Your task to perform on an android device: What is the recent news? Image 0: 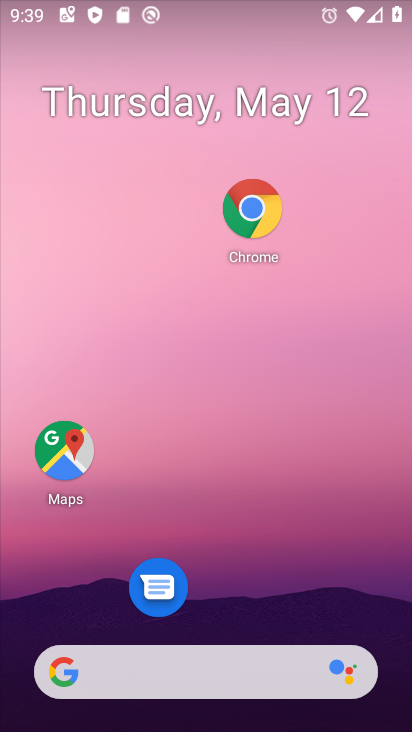
Step 0: drag from (319, 573) to (336, 240)
Your task to perform on an android device: What is the recent news? Image 1: 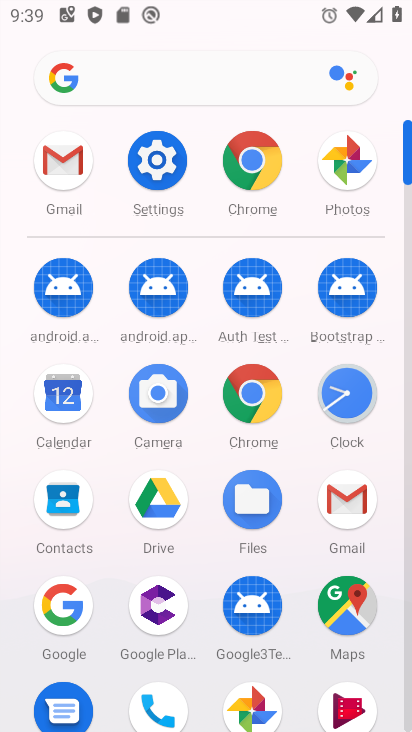
Step 1: click (252, 386)
Your task to perform on an android device: What is the recent news? Image 2: 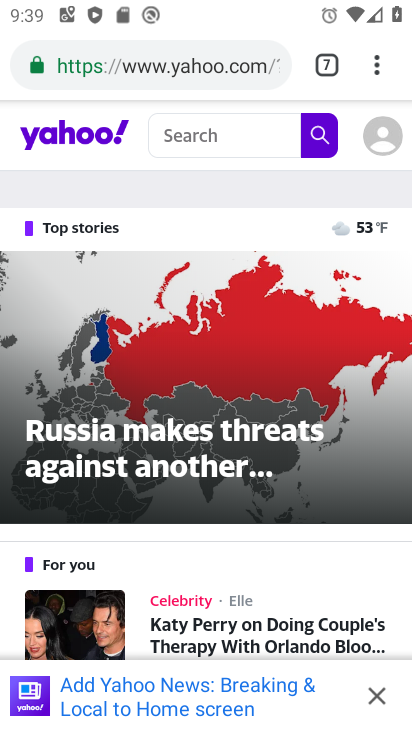
Step 2: click (364, 67)
Your task to perform on an android device: What is the recent news? Image 3: 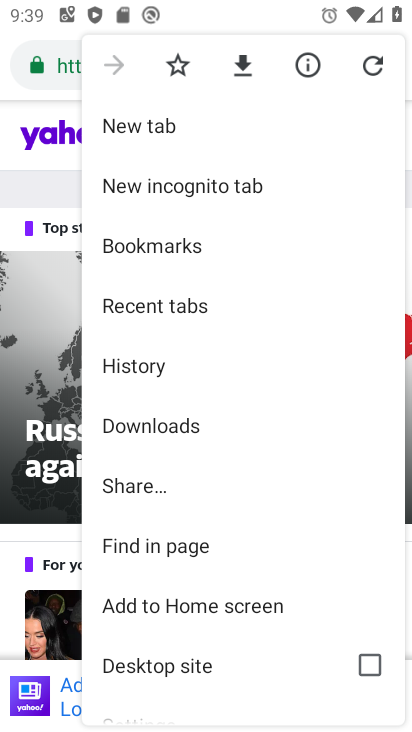
Step 3: click (199, 114)
Your task to perform on an android device: What is the recent news? Image 4: 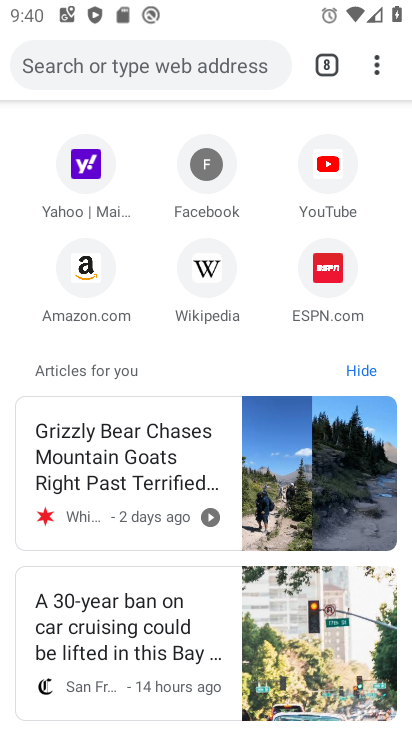
Step 4: click (132, 55)
Your task to perform on an android device: What is the recent news? Image 5: 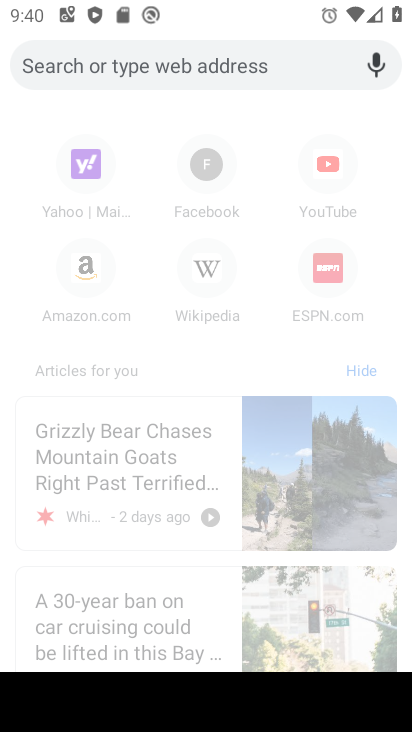
Step 5: type "What is the recent news?"
Your task to perform on an android device: What is the recent news? Image 6: 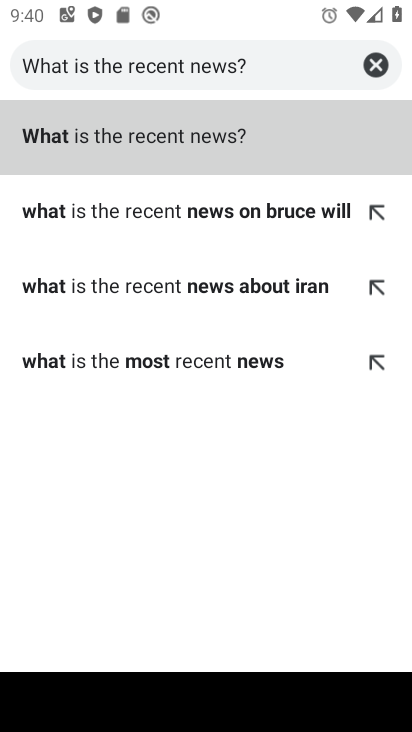
Step 6: click (318, 141)
Your task to perform on an android device: What is the recent news? Image 7: 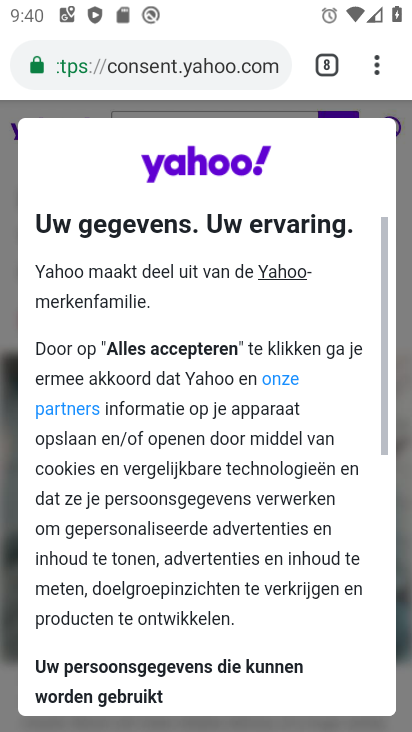
Step 7: task complete